Your task to perform on an android device: open chrome and create a bookmark for the current page Image 0: 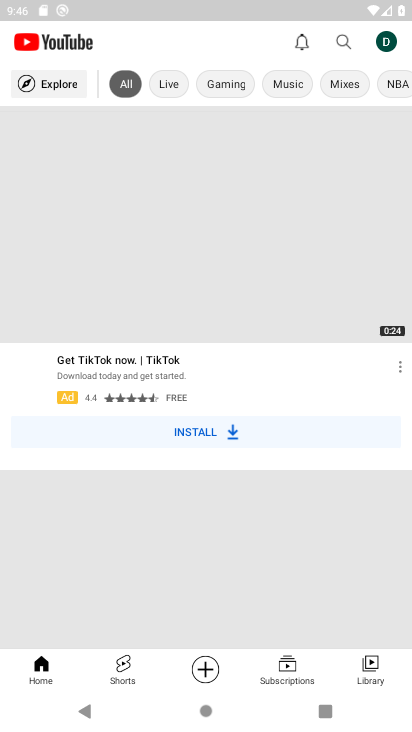
Step 0: press back button
Your task to perform on an android device: open chrome and create a bookmark for the current page Image 1: 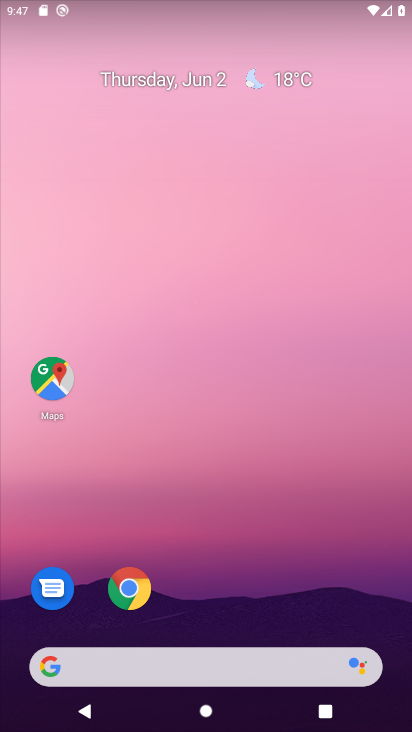
Step 1: drag from (274, 706) to (214, 152)
Your task to perform on an android device: open chrome and create a bookmark for the current page Image 2: 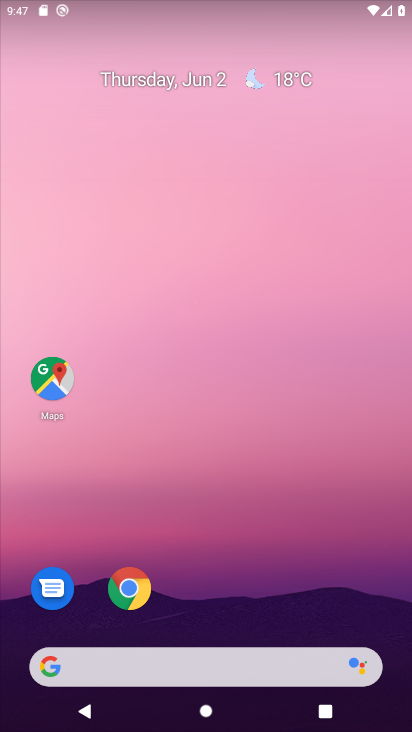
Step 2: drag from (250, 699) to (148, 104)
Your task to perform on an android device: open chrome and create a bookmark for the current page Image 3: 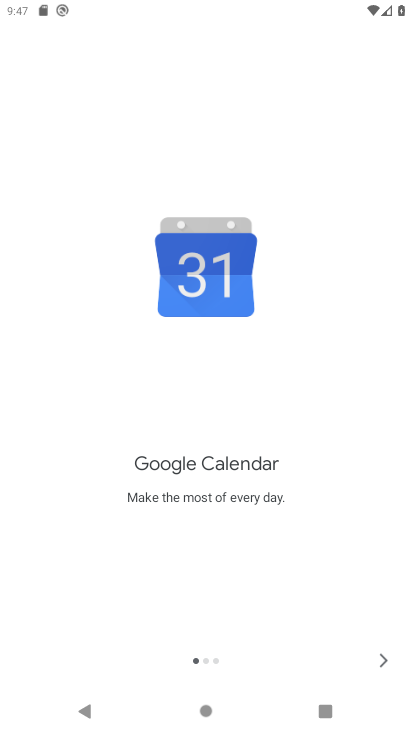
Step 3: click (386, 665)
Your task to perform on an android device: open chrome and create a bookmark for the current page Image 4: 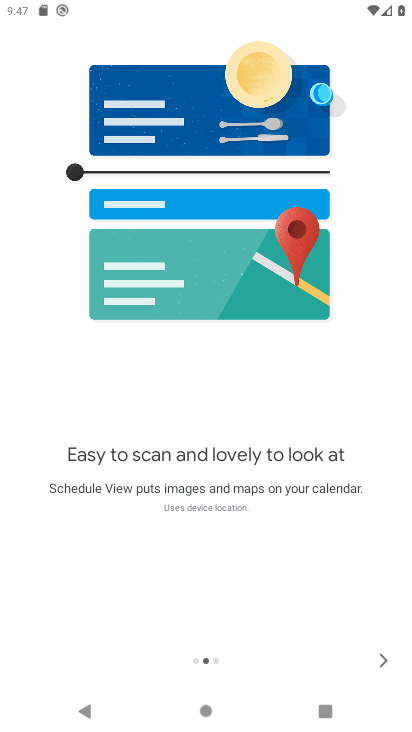
Step 4: click (385, 664)
Your task to perform on an android device: open chrome and create a bookmark for the current page Image 5: 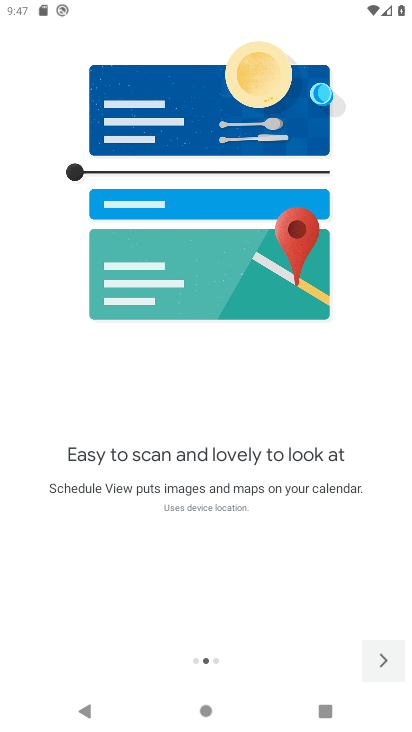
Step 5: click (385, 664)
Your task to perform on an android device: open chrome and create a bookmark for the current page Image 6: 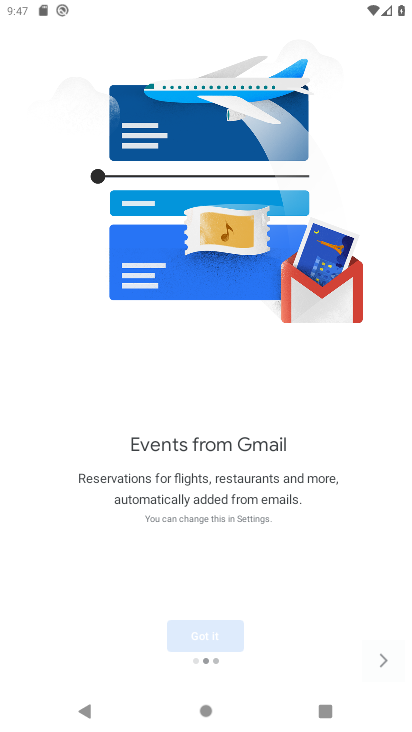
Step 6: click (385, 664)
Your task to perform on an android device: open chrome and create a bookmark for the current page Image 7: 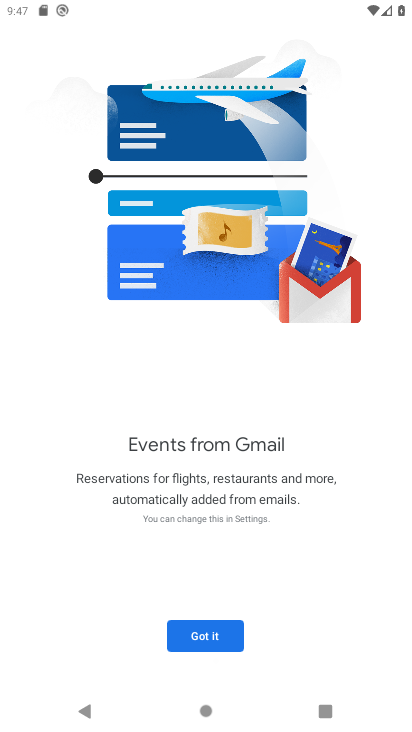
Step 7: click (385, 664)
Your task to perform on an android device: open chrome and create a bookmark for the current page Image 8: 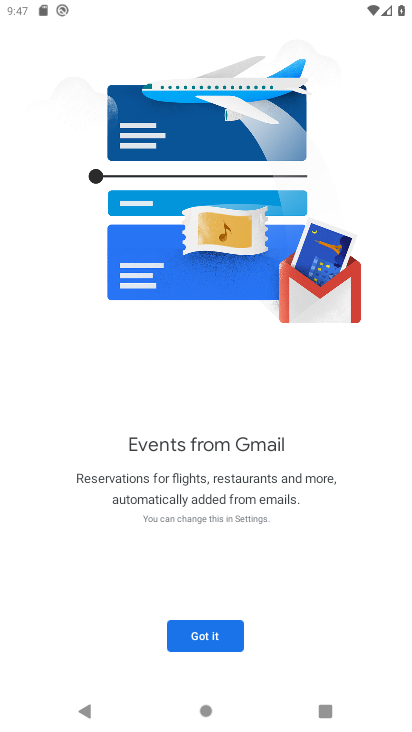
Step 8: click (202, 632)
Your task to perform on an android device: open chrome and create a bookmark for the current page Image 9: 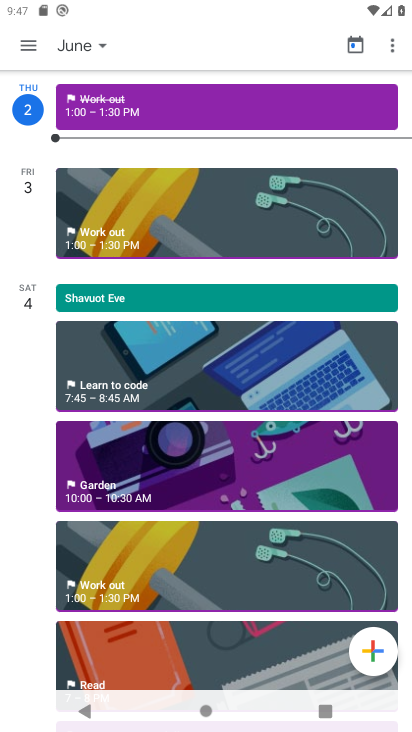
Step 9: press back button
Your task to perform on an android device: open chrome and create a bookmark for the current page Image 10: 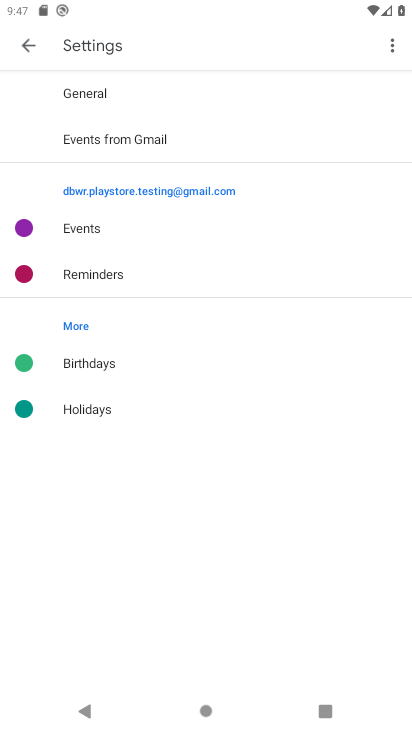
Step 10: click (28, 50)
Your task to perform on an android device: open chrome and create a bookmark for the current page Image 11: 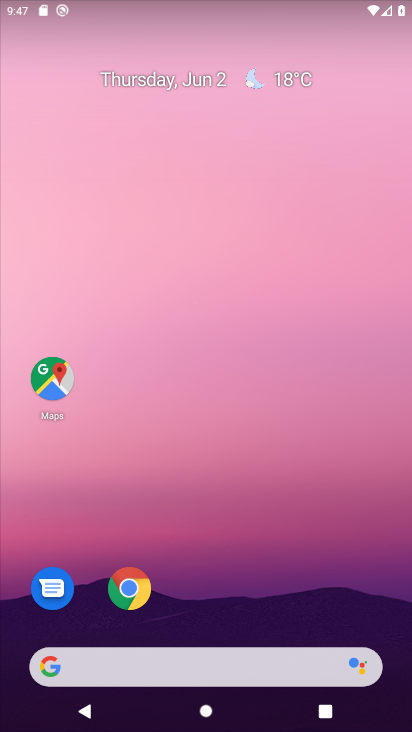
Step 11: drag from (240, 642) to (179, 336)
Your task to perform on an android device: open chrome and create a bookmark for the current page Image 12: 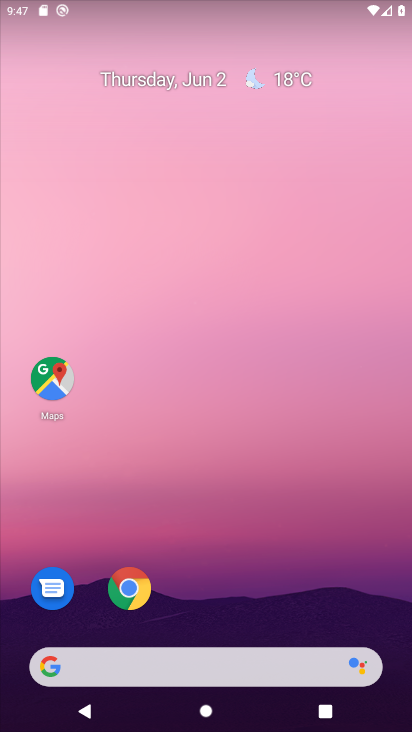
Step 12: drag from (285, 651) to (208, 247)
Your task to perform on an android device: open chrome and create a bookmark for the current page Image 13: 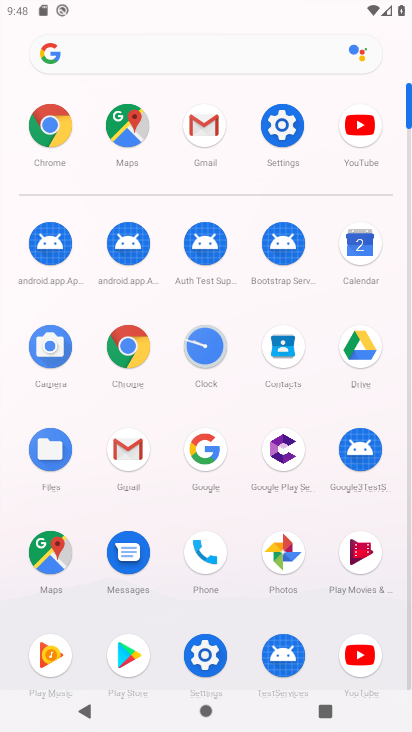
Step 13: click (55, 121)
Your task to perform on an android device: open chrome and create a bookmark for the current page Image 14: 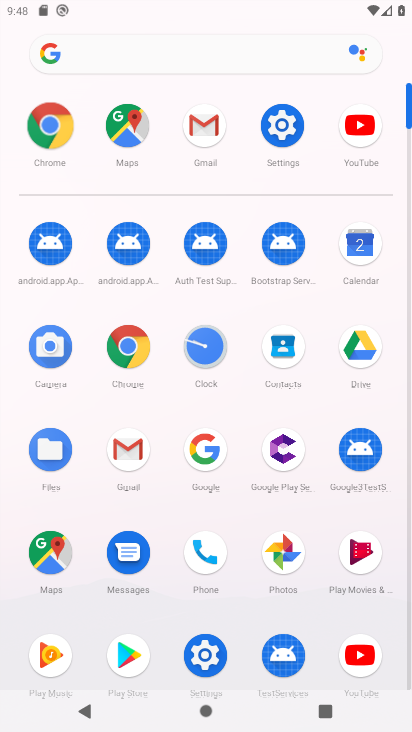
Step 14: click (55, 121)
Your task to perform on an android device: open chrome and create a bookmark for the current page Image 15: 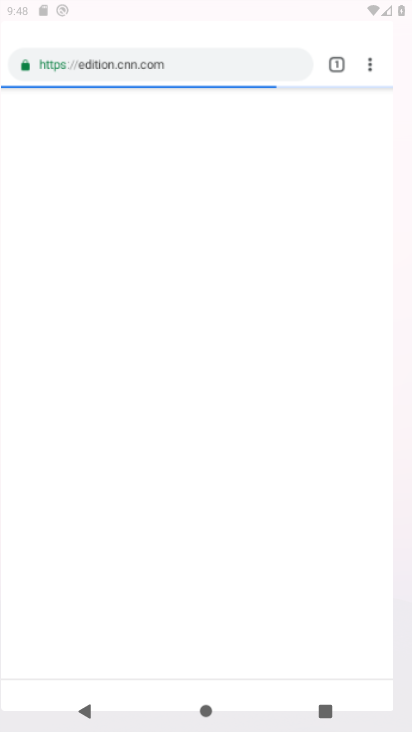
Step 15: click (57, 120)
Your task to perform on an android device: open chrome and create a bookmark for the current page Image 16: 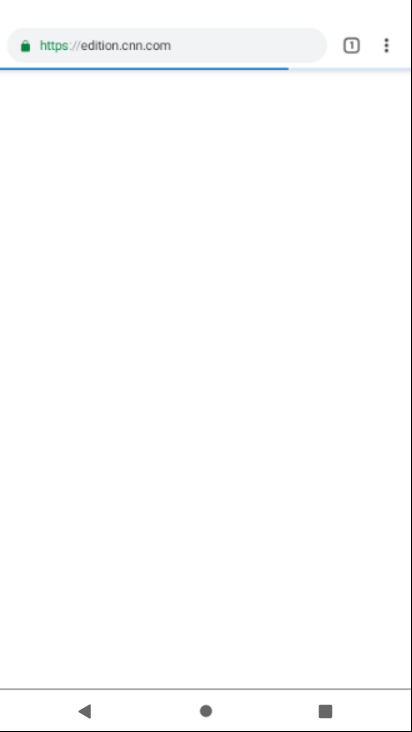
Step 16: click (57, 120)
Your task to perform on an android device: open chrome and create a bookmark for the current page Image 17: 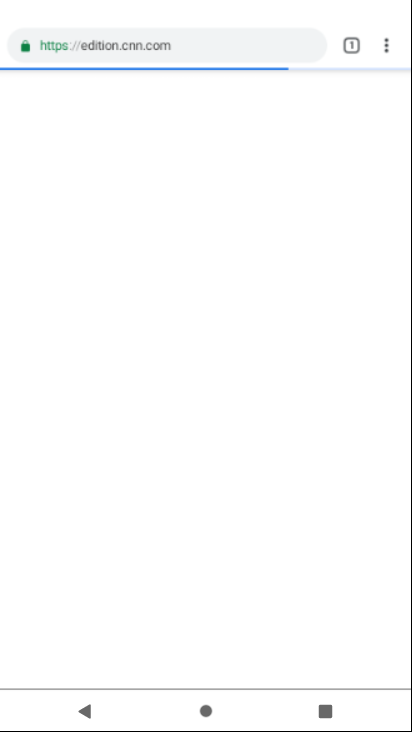
Step 17: click (57, 120)
Your task to perform on an android device: open chrome and create a bookmark for the current page Image 18: 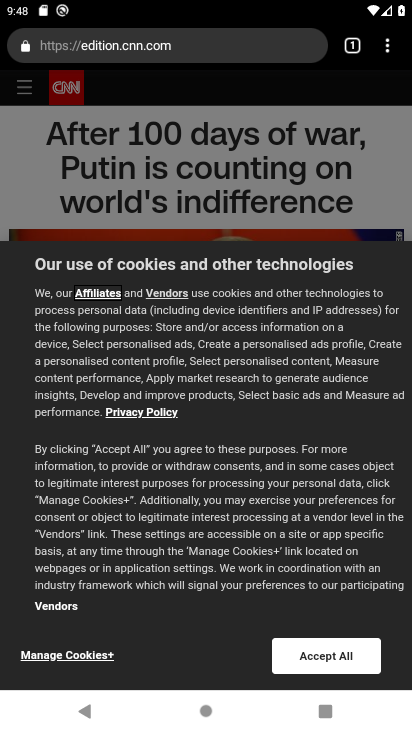
Step 18: click (410, 18)
Your task to perform on an android device: open chrome and create a bookmark for the current page Image 19: 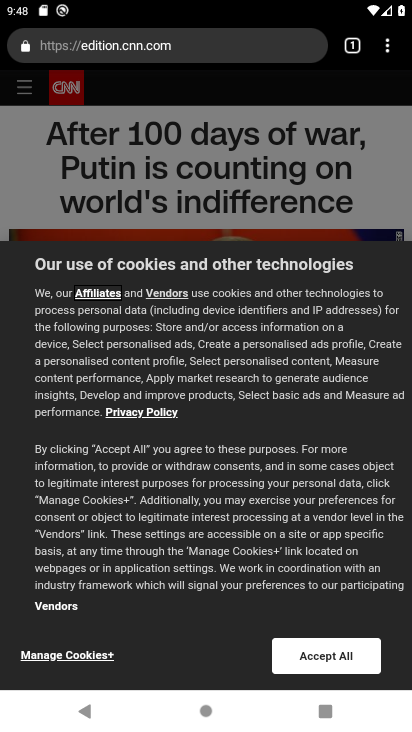
Step 19: click (384, 46)
Your task to perform on an android device: open chrome and create a bookmark for the current page Image 20: 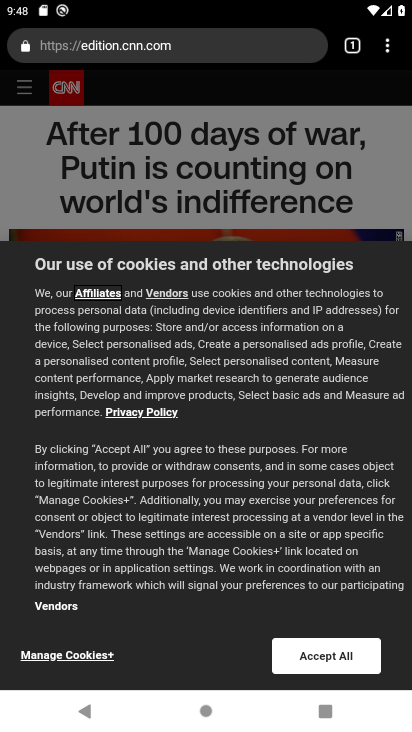
Step 20: click (385, 51)
Your task to perform on an android device: open chrome and create a bookmark for the current page Image 21: 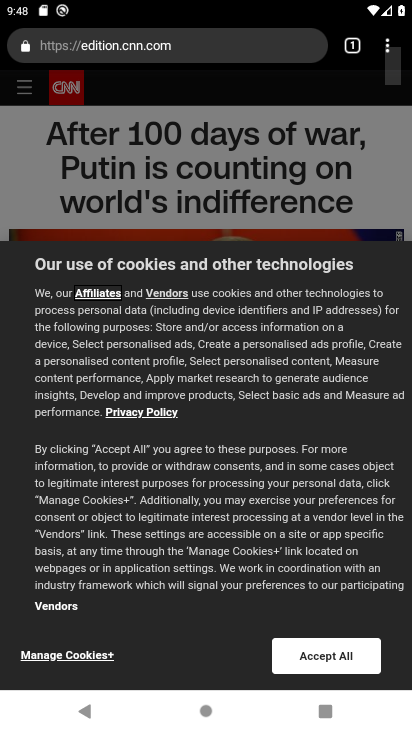
Step 21: drag from (385, 51) to (209, 88)
Your task to perform on an android device: open chrome and create a bookmark for the current page Image 22: 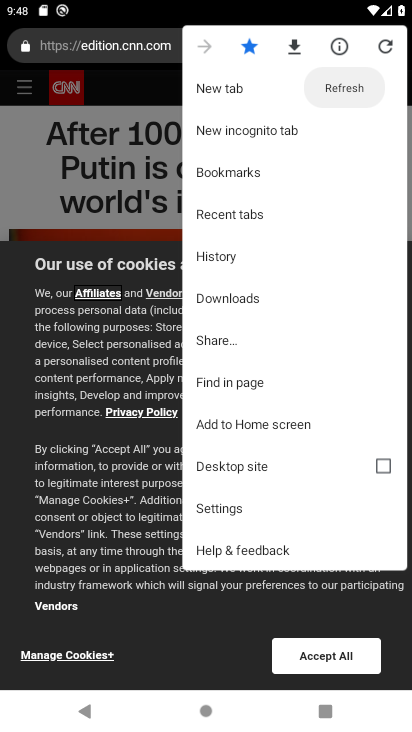
Step 22: click (216, 82)
Your task to perform on an android device: open chrome and create a bookmark for the current page Image 23: 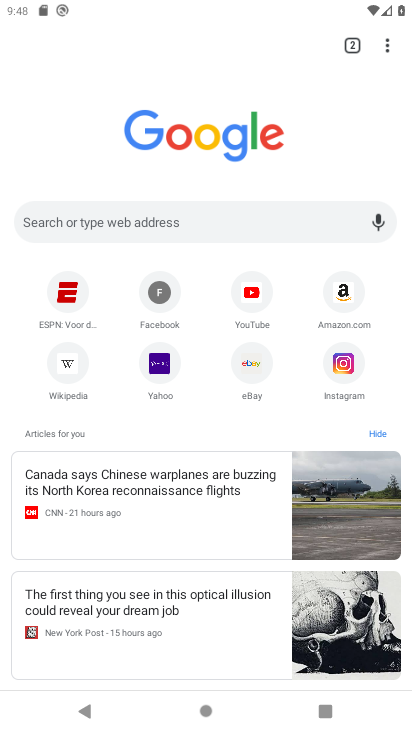
Step 23: click (49, 225)
Your task to perform on an android device: open chrome and create a bookmark for the current page Image 24: 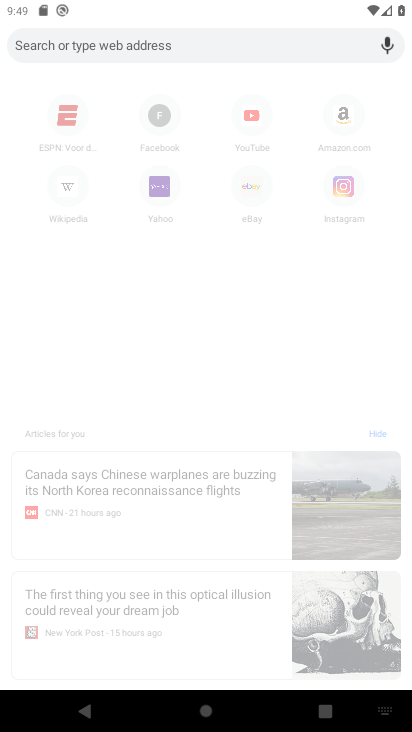
Step 24: type "www.snapdeal.com"
Your task to perform on an android device: open chrome and create a bookmark for the current page Image 25: 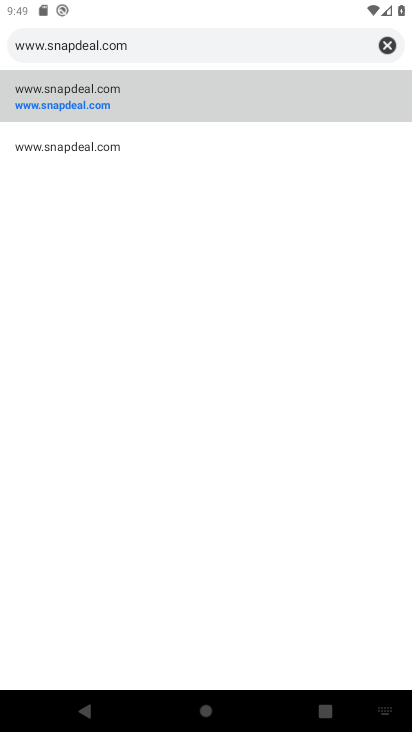
Step 25: click (80, 104)
Your task to perform on an android device: open chrome and create a bookmark for the current page Image 26: 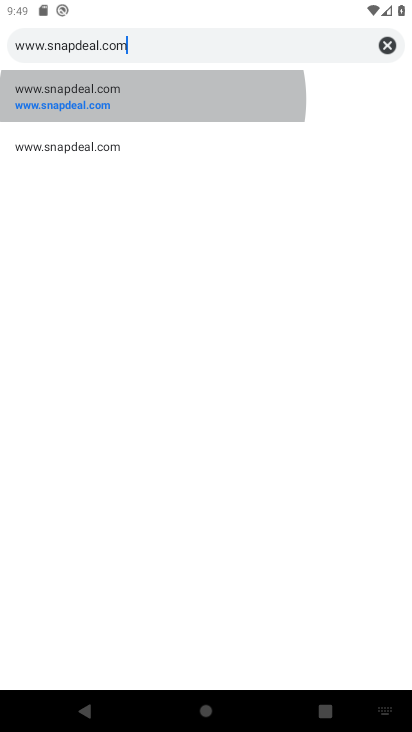
Step 26: click (78, 106)
Your task to perform on an android device: open chrome and create a bookmark for the current page Image 27: 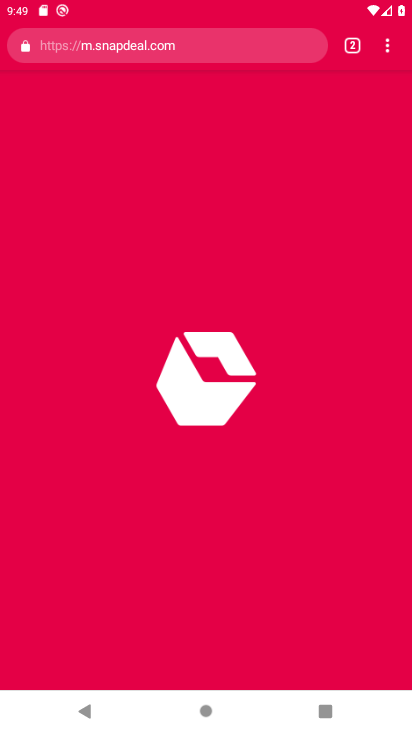
Step 27: task complete